Your task to perform on an android device: Show me productivity apps on the Play Store Image 0: 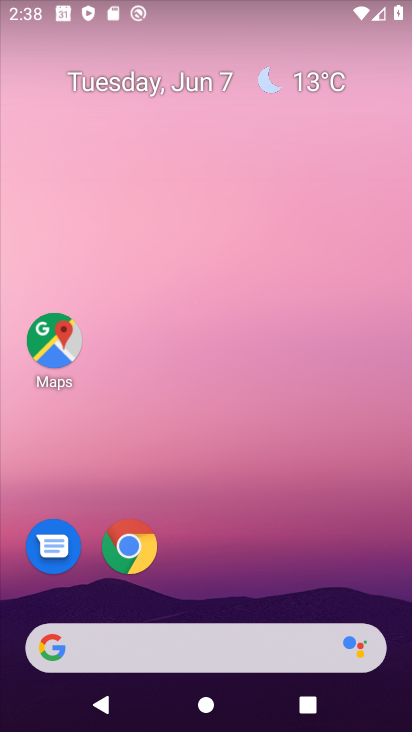
Step 0: drag from (288, 185) to (284, 104)
Your task to perform on an android device: Show me productivity apps on the Play Store Image 1: 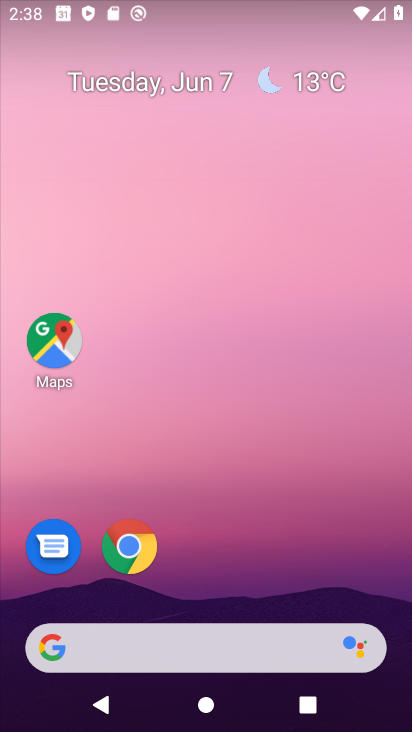
Step 1: drag from (193, 601) to (218, 43)
Your task to perform on an android device: Show me productivity apps on the Play Store Image 2: 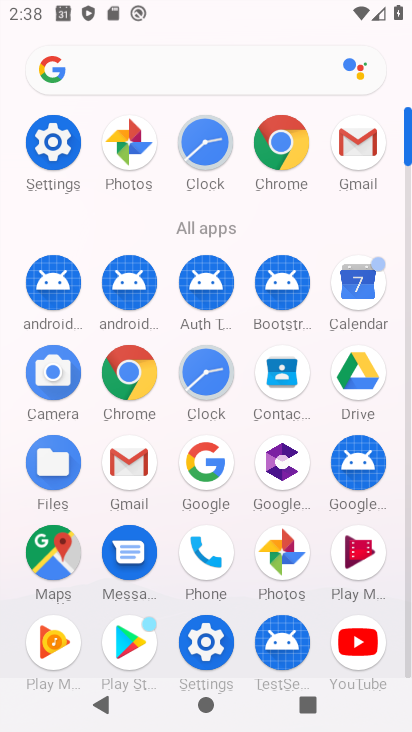
Step 2: click (120, 642)
Your task to perform on an android device: Show me productivity apps on the Play Store Image 3: 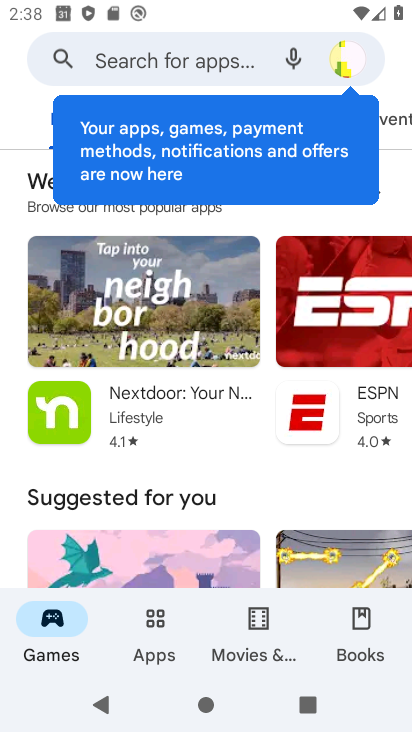
Step 3: click (147, 635)
Your task to perform on an android device: Show me productivity apps on the Play Store Image 4: 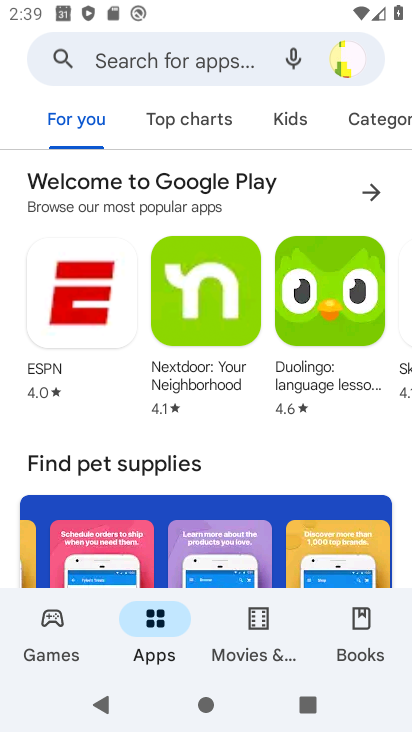
Step 4: click (367, 131)
Your task to perform on an android device: Show me productivity apps on the Play Store Image 5: 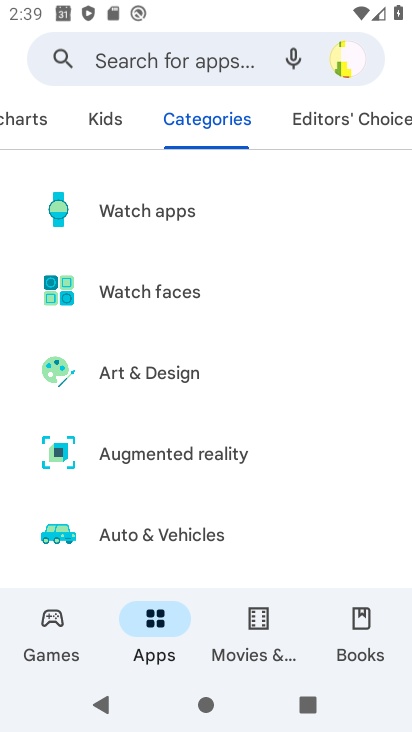
Step 5: drag from (122, 537) to (85, 250)
Your task to perform on an android device: Show me productivity apps on the Play Store Image 6: 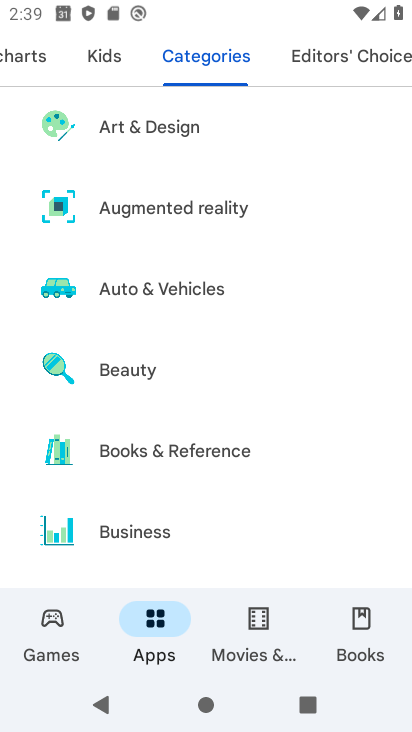
Step 6: click (124, 191)
Your task to perform on an android device: Show me productivity apps on the Play Store Image 7: 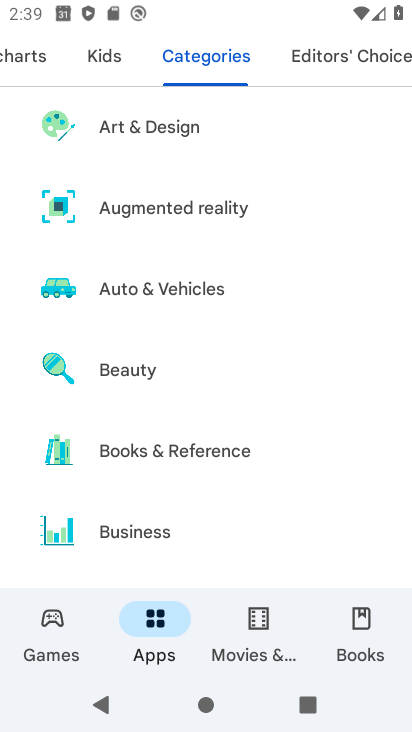
Step 7: click (127, 261)
Your task to perform on an android device: Show me productivity apps on the Play Store Image 8: 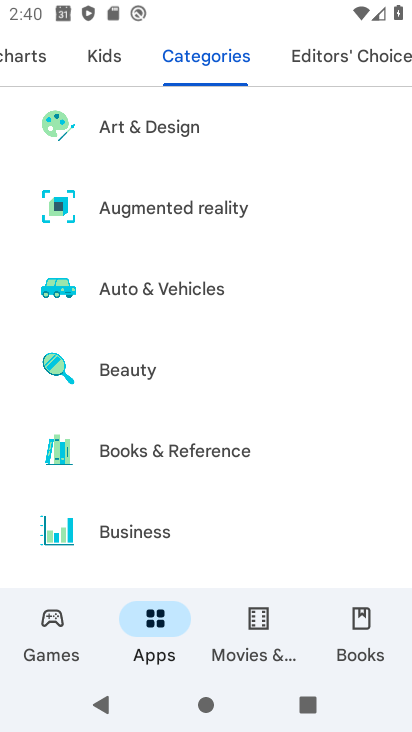
Step 8: drag from (111, 574) to (116, 167)
Your task to perform on an android device: Show me productivity apps on the Play Store Image 9: 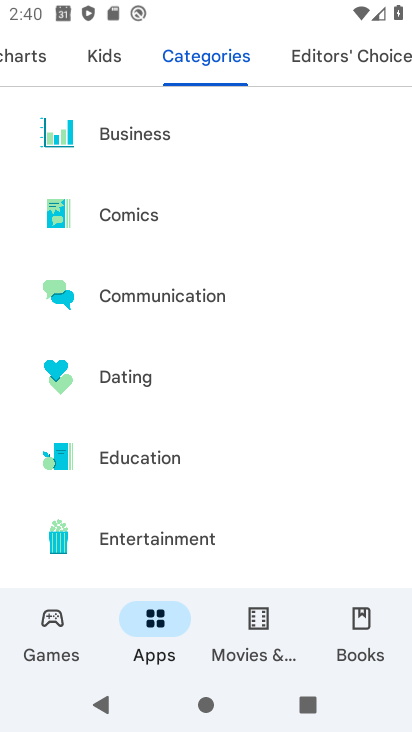
Step 9: drag from (122, 560) to (204, 5)
Your task to perform on an android device: Show me productivity apps on the Play Store Image 10: 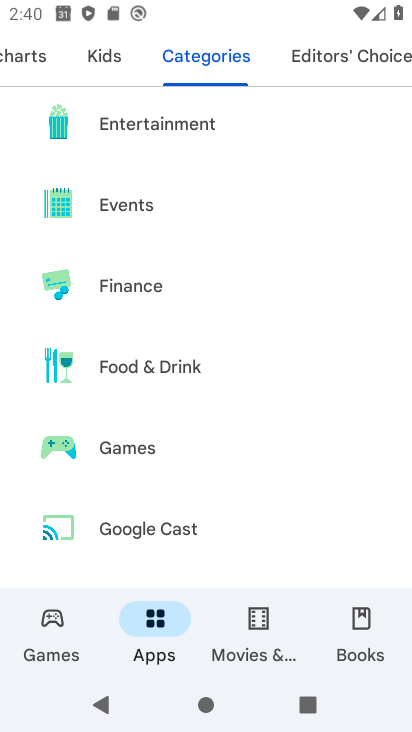
Step 10: drag from (118, 404) to (136, 40)
Your task to perform on an android device: Show me productivity apps on the Play Store Image 11: 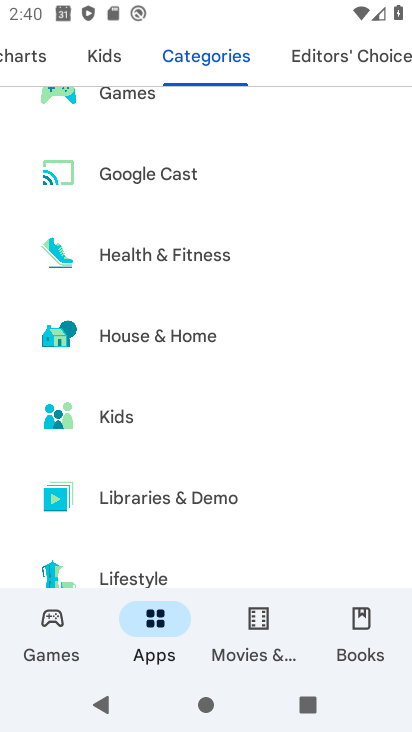
Step 11: drag from (116, 569) to (137, 70)
Your task to perform on an android device: Show me productivity apps on the Play Store Image 12: 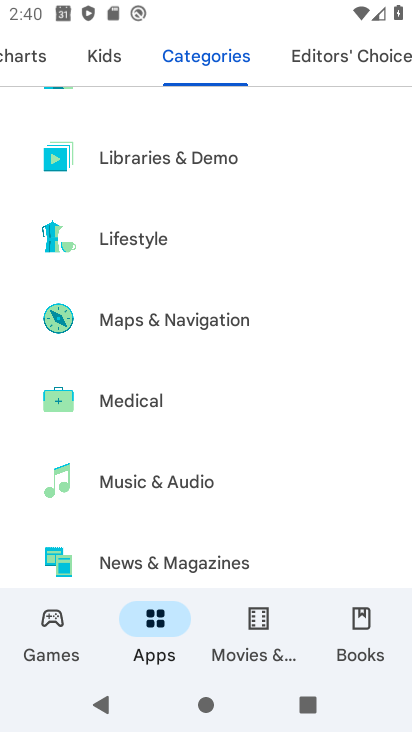
Step 12: drag from (137, 578) to (166, 76)
Your task to perform on an android device: Show me productivity apps on the Play Store Image 13: 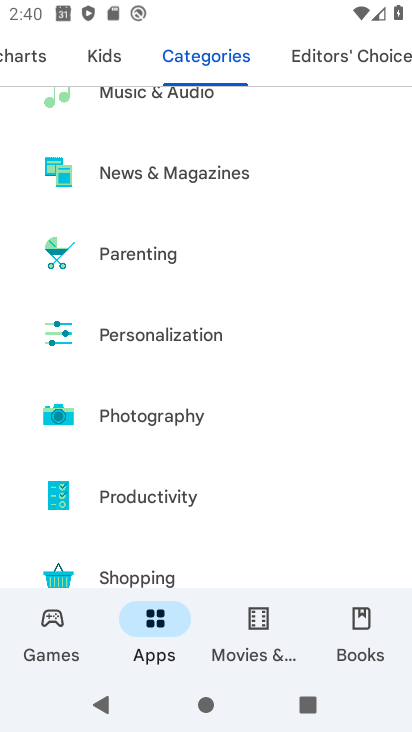
Step 13: click (123, 477)
Your task to perform on an android device: Show me productivity apps on the Play Store Image 14: 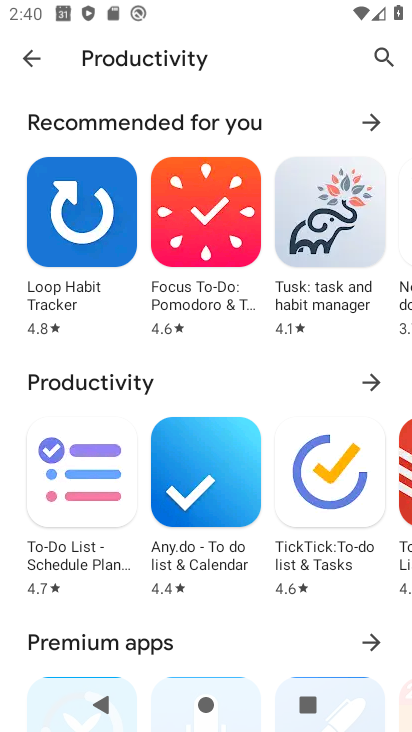
Step 14: task complete